Your task to perform on an android device: toggle data saver in the chrome app Image 0: 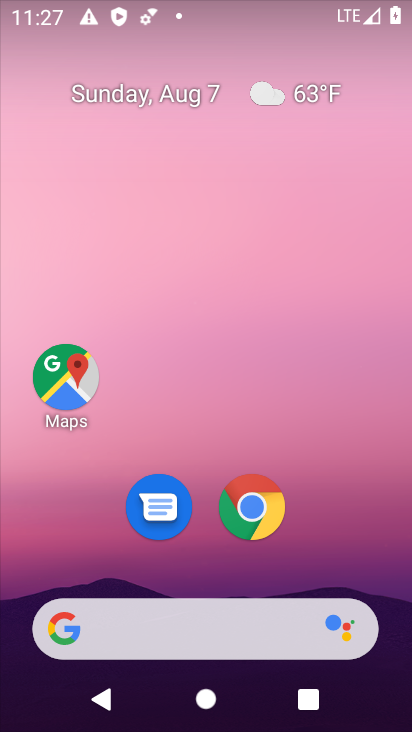
Step 0: click (260, 517)
Your task to perform on an android device: toggle data saver in the chrome app Image 1: 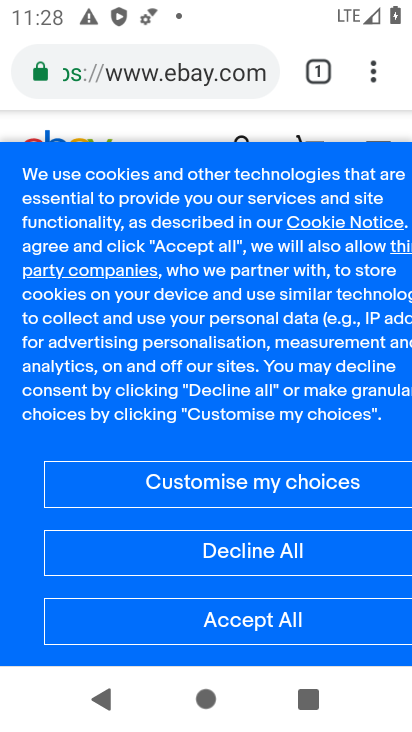
Step 1: click (381, 59)
Your task to perform on an android device: toggle data saver in the chrome app Image 2: 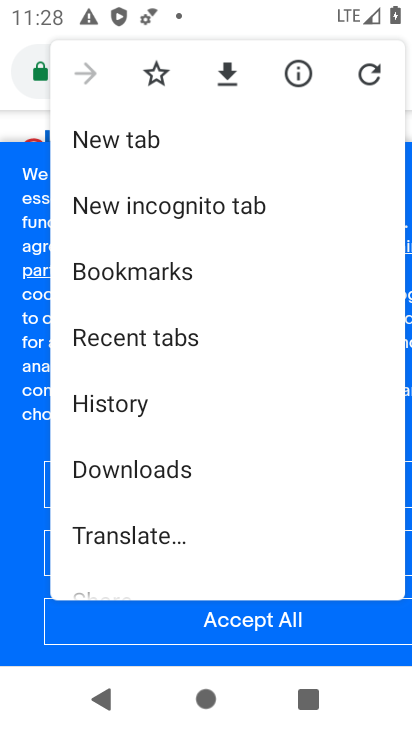
Step 2: drag from (247, 476) to (207, 333)
Your task to perform on an android device: toggle data saver in the chrome app Image 3: 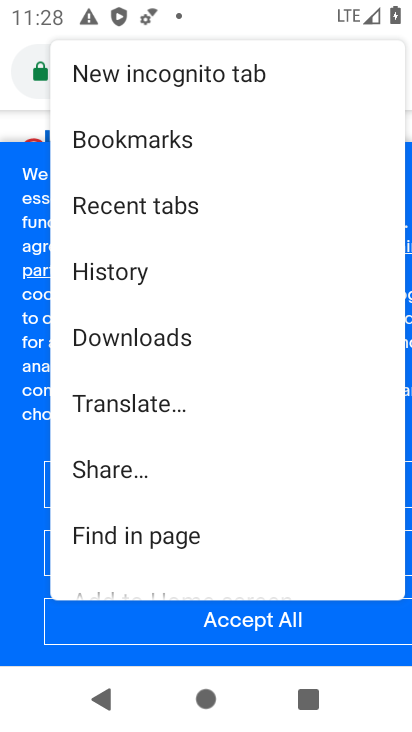
Step 3: drag from (255, 495) to (174, 250)
Your task to perform on an android device: toggle data saver in the chrome app Image 4: 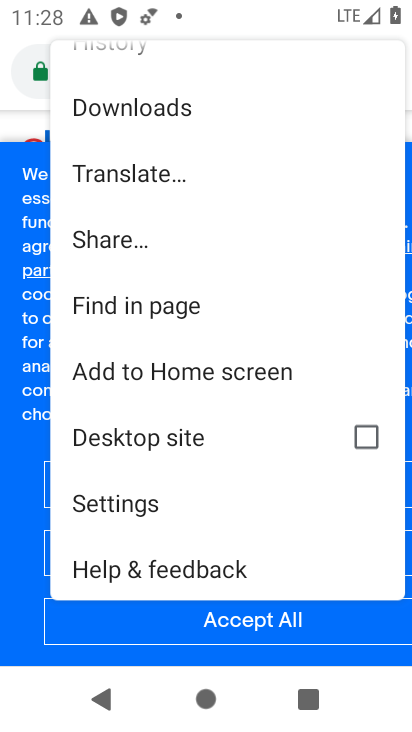
Step 4: click (141, 507)
Your task to perform on an android device: toggle data saver in the chrome app Image 5: 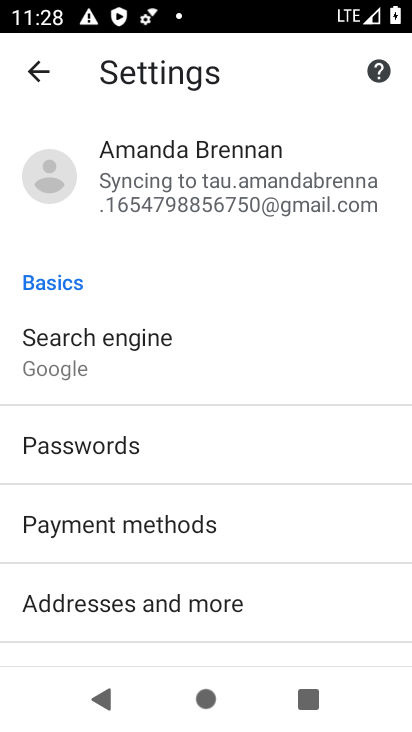
Step 5: drag from (196, 579) to (57, 173)
Your task to perform on an android device: toggle data saver in the chrome app Image 6: 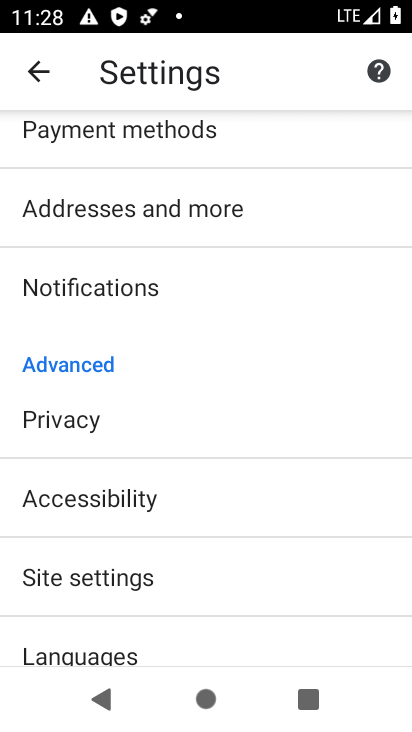
Step 6: drag from (221, 595) to (130, 359)
Your task to perform on an android device: toggle data saver in the chrome app Image 7: 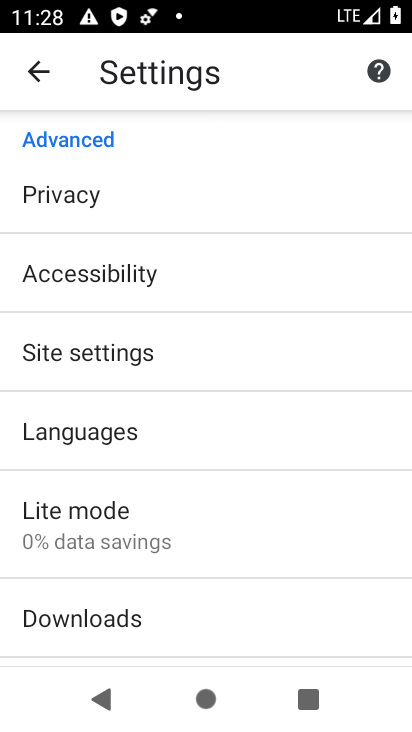
Step 7: click (79, 531)
Your task to perform on an android device: toggle data saver in the chrome app Image 8: 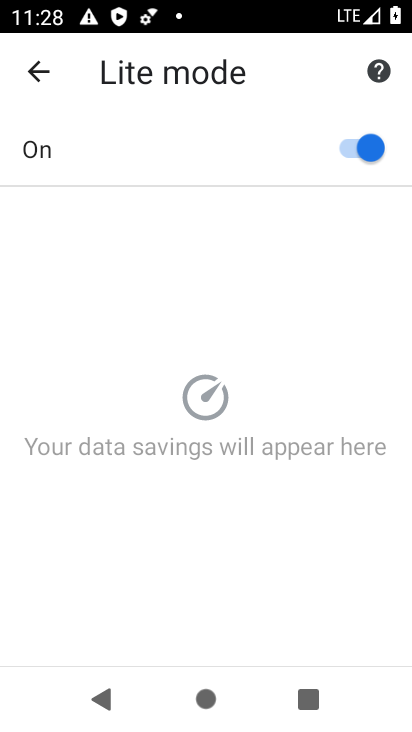
Step 8: click (369, 145)
Your task to perform on an android device: toggle data saver in the chrome app Image 9: 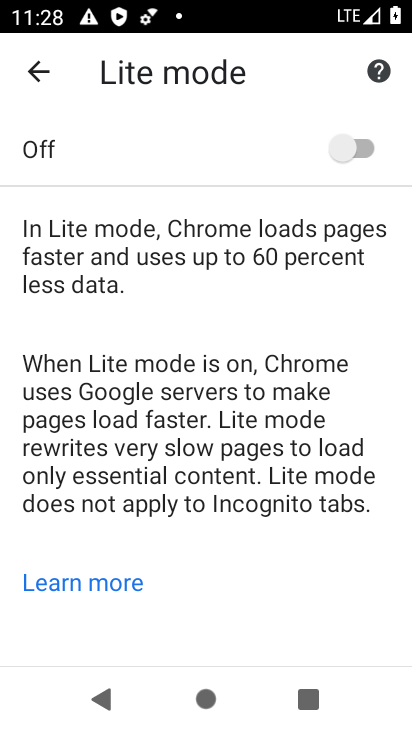
Step 9: task complete